Your task to perform on an android device: Search for vegetarian restaurants on Maps Image 0: 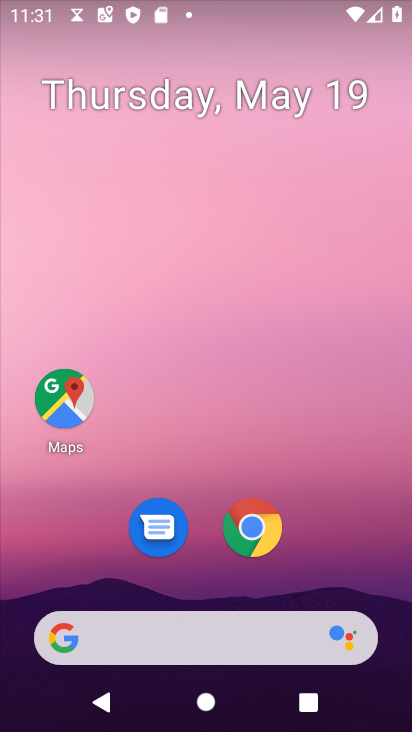
Step 0: click (71, 394)
Your task to perform on an android device: Search for vegetarian restaurants on Maps Image 1: 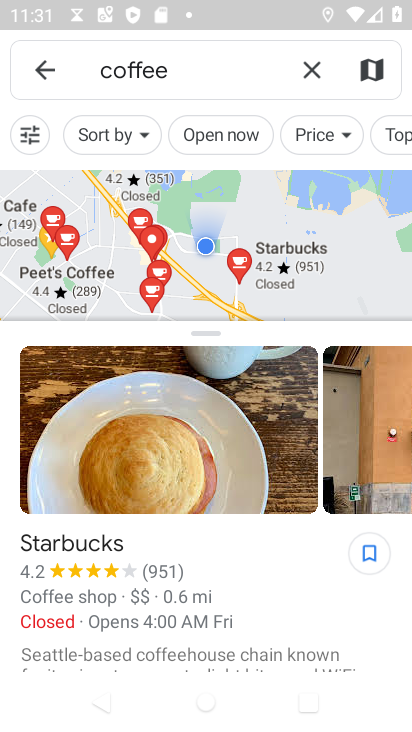
Step 1: click (311, 76)
Your task to perform on an android device: Search for vegetarian restaurants on Maps Image 2: 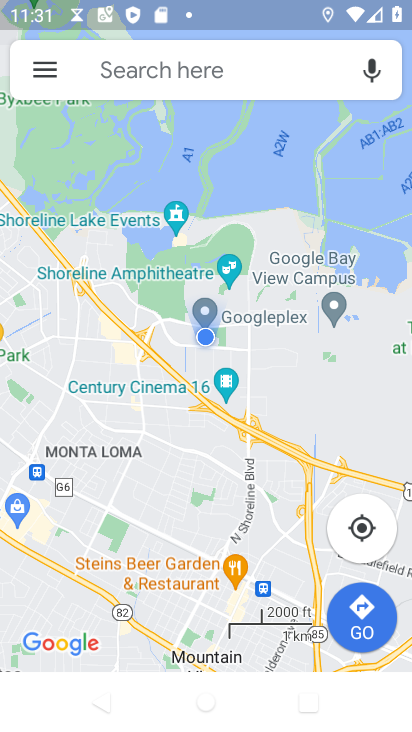
Step 2: click (217, 65)
Your task to perform on an android device: Search for vegetarian restaurants on Maps Image 3: 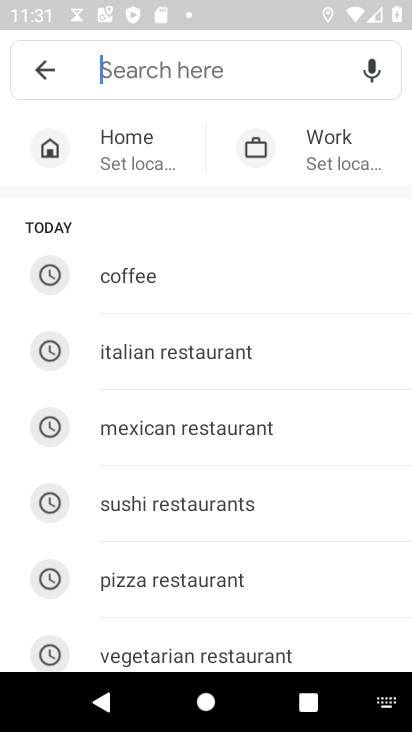
Step 3: type "vegetarian restaurants"
Your task to perform on an android device: Search for vegetarian restaurants on Maps Image 4: 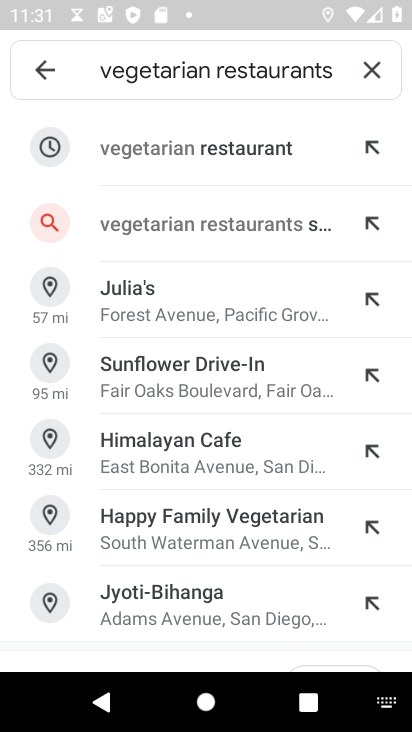
Step 4: click (250, 150)
Your task to perform on an android device: Search for vegetarian restaurants on Maps Image 5: 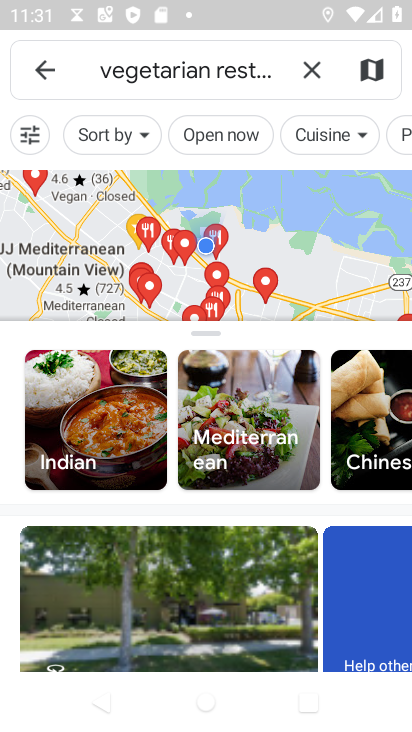
Step 5: task complete